Your task to perform on an android device: create a new album in the google photos Image 0: 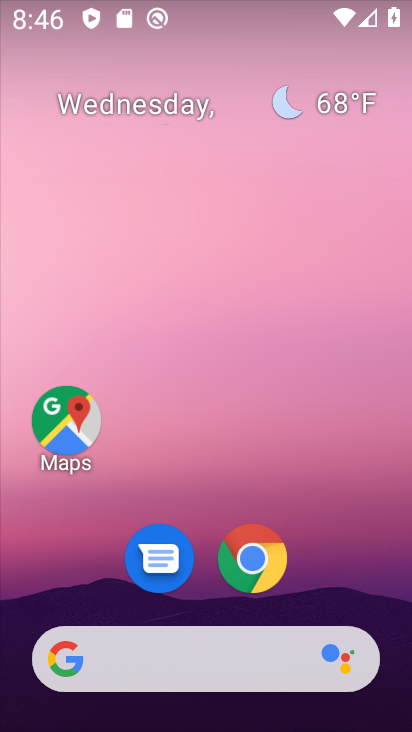
Step 0: drag from (377, 584) to (305, 112)
Your task to perform on an android device: create a new album in the google photos Image 1: 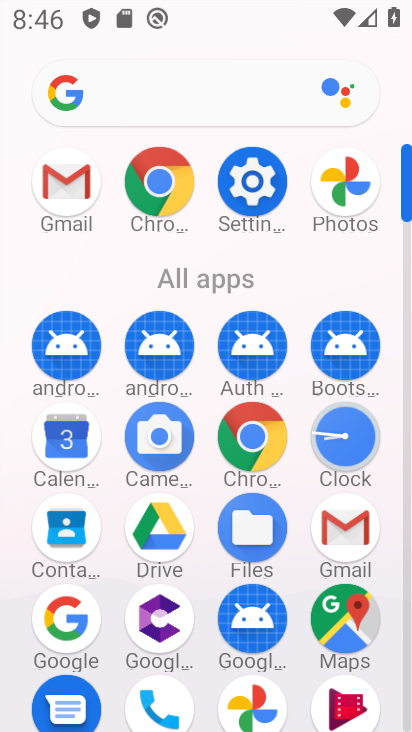
Step 1: click (338, 170)
Your task to perform on an android device: create a new album in the google photos Image 2: 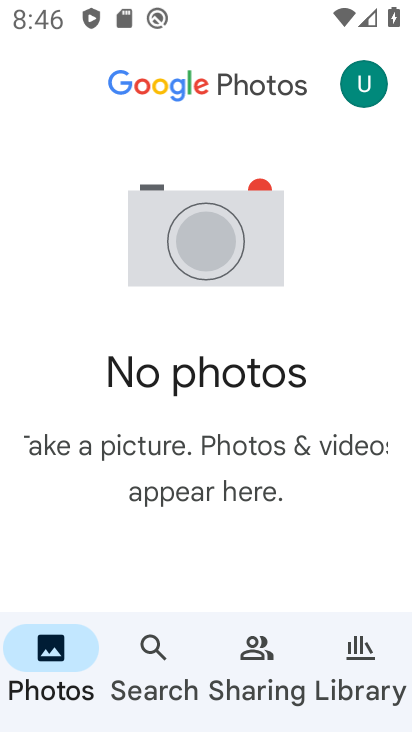
Step 2: click (356, 648)
Your task to perform on an android device: create a new album in the google photos Image 3: 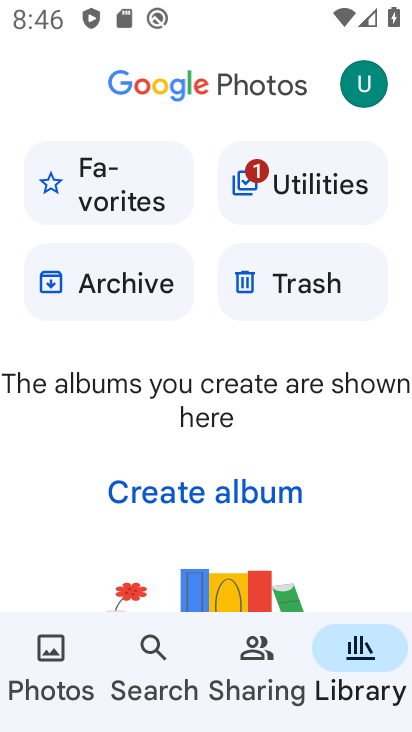
Step 3: click (257, 502)
Your task to perform on an android device: create a new album in the google photos Image 4: 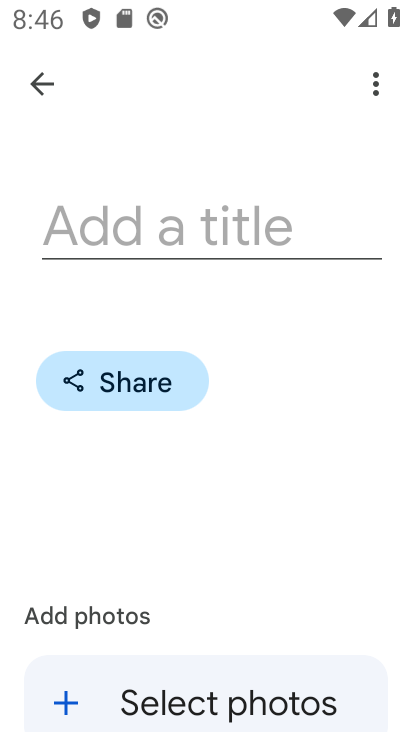
Step 4: click (268, 694)
Your task to perform on an android device: create a new album in the google photos Image 5: 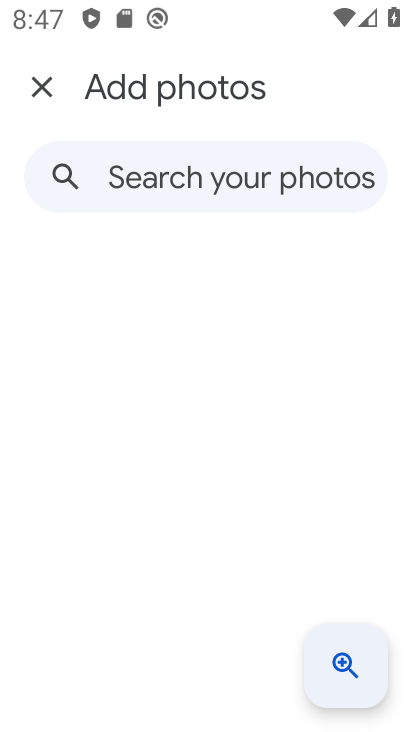
Step 5: task complete